Your task to perform on an android device: turn pop-ups off in chrome Image 0: 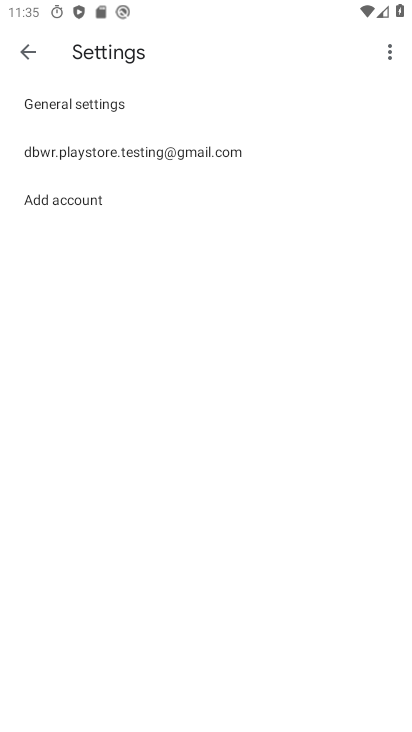
Step 0: press home button
Your task to perform on an android device: turn pop-ups off in chrome Image 1: 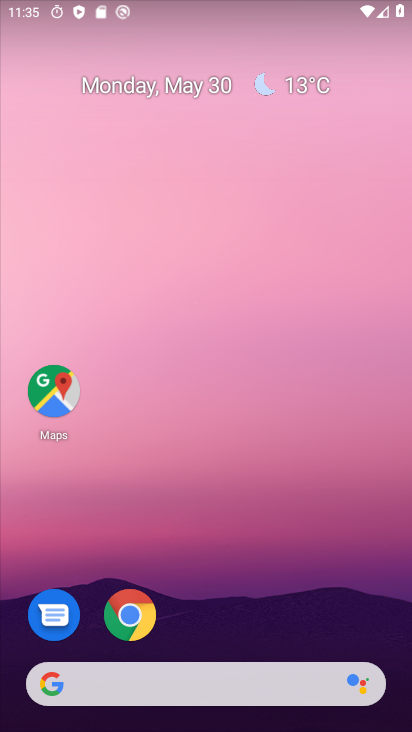
Step 1: drag from (257, 649) to (384, 190)
Your task to perform on an android device: turn pop-ups off in chrome Image 2: 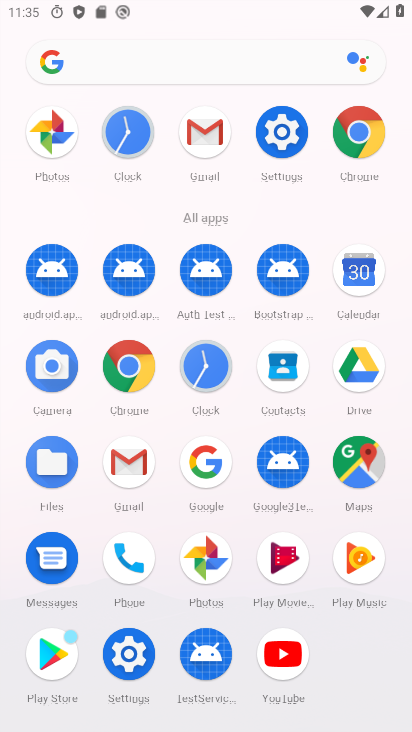
Step 2: click (140, 371)
Your task to perform on an android device: turn pop-ups off in chrome Image 3: 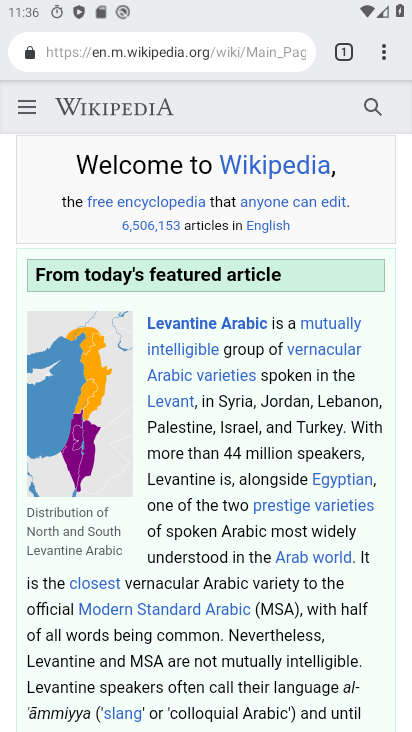
Step 3: drag from (392, 69) to (285, 614)
Your task to perform on an android device: turn pop-ups off in chrome Image 4: 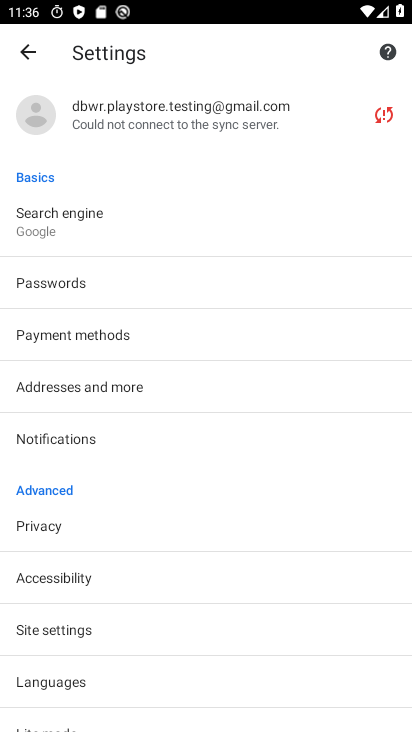
Step 4: click (118, 622)
Your task to perform on an android device: turn pop-ups off in chrome Image 5: 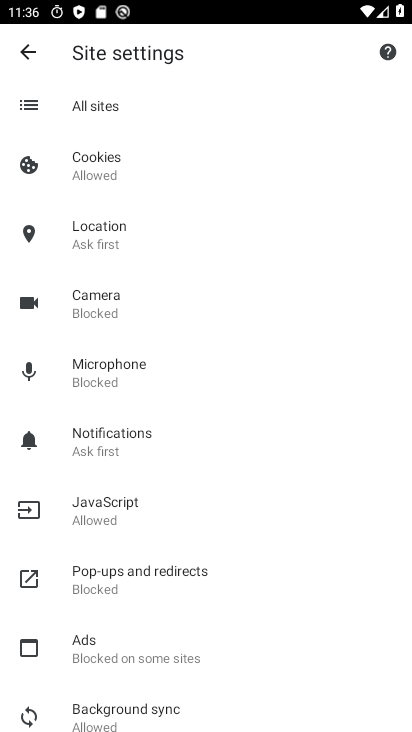
Step 5: click (257, 574)
Your task to perform on an android device: turn pop-ups off in chrome Image 6: 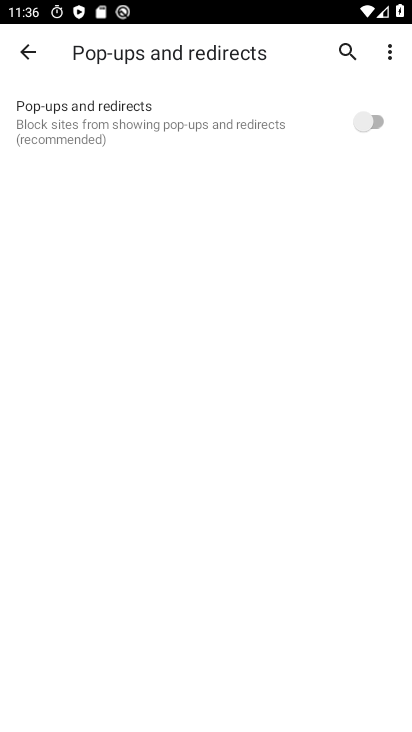
Step 6: task complete